Your task to perform on an android device: install app "Google Find My Device" Image 0: 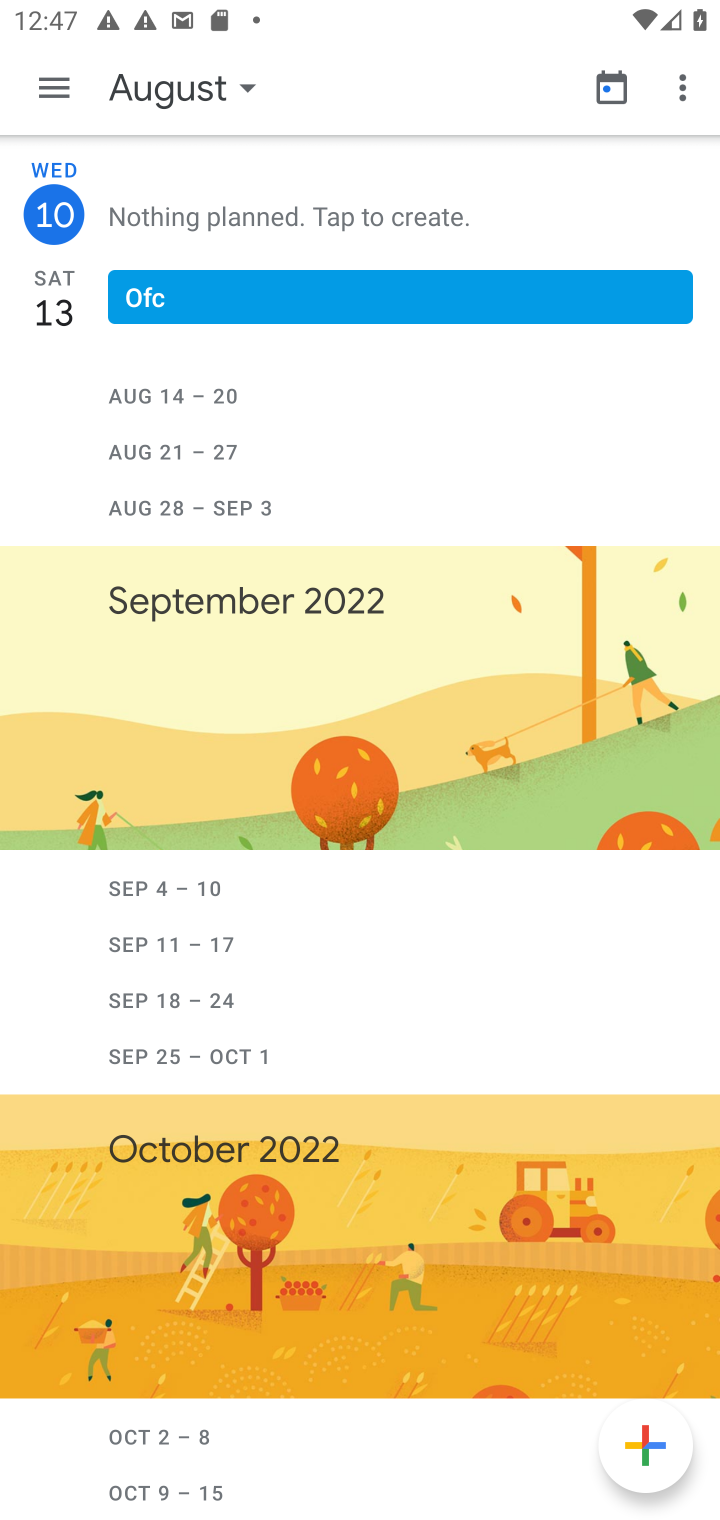
Step 0: press home button
Your task to perform on an android device: install app "Google Find My Device" Image 1: 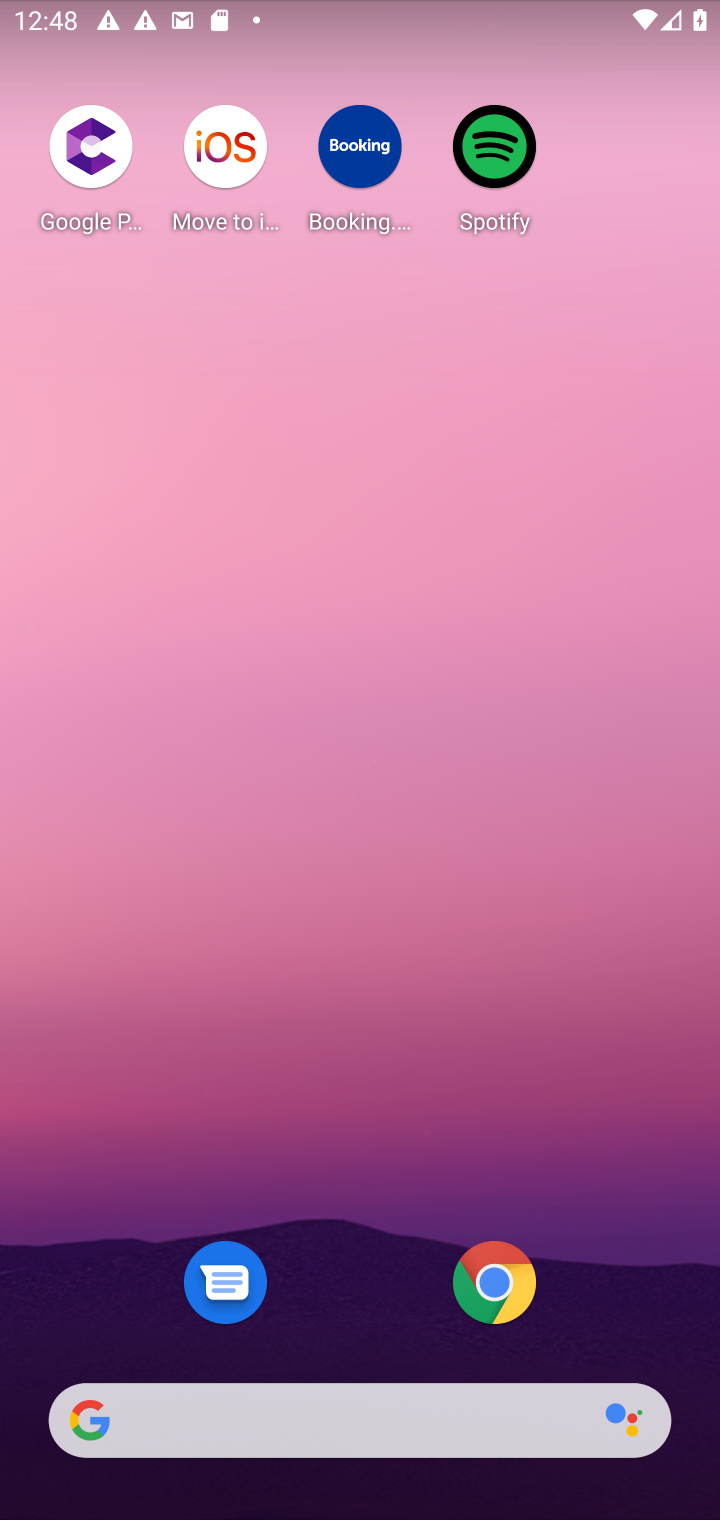
Step 1: drag from (395, 1345) to (432, 451)
Your task to perform on an android device: install app "Google Find My Device" Image 2: 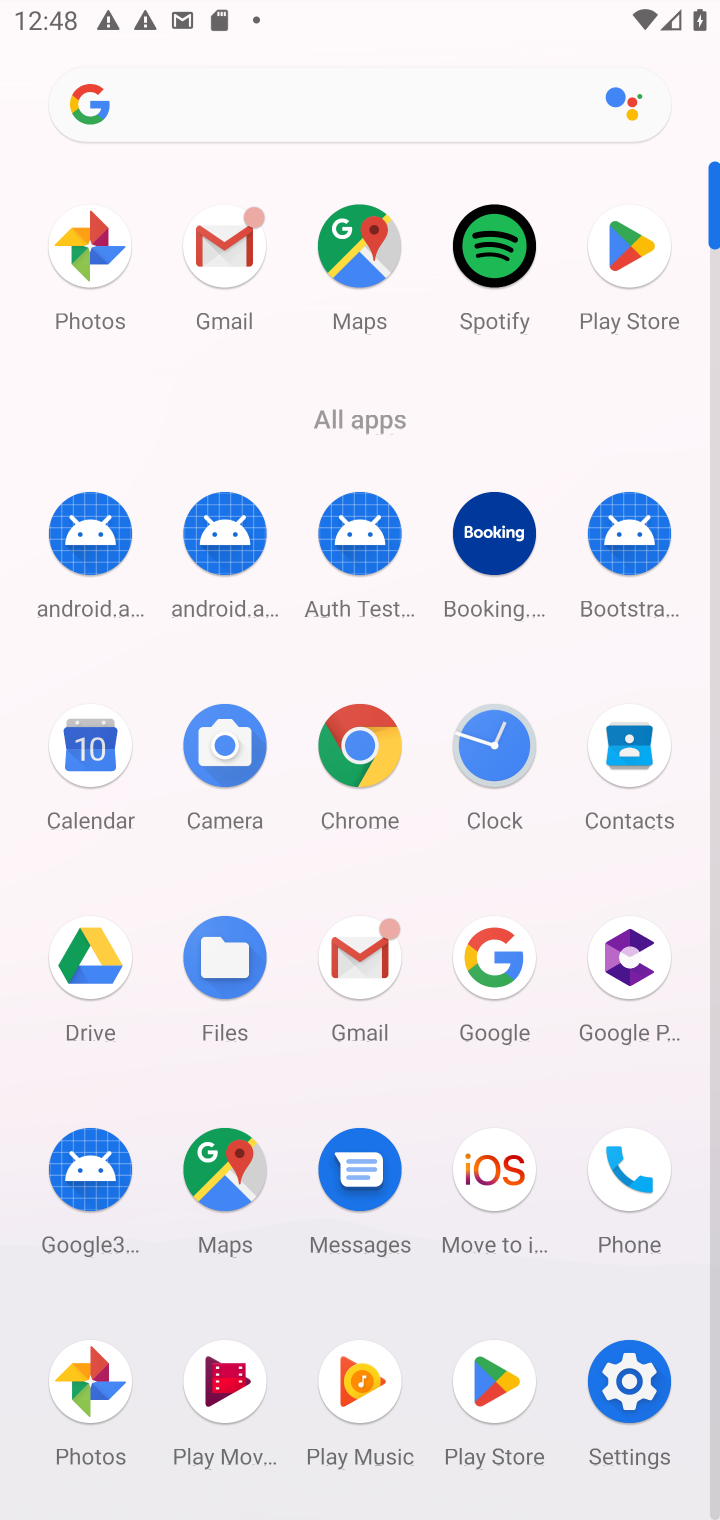
Step 2: click (242, 1174)
Your task to perform on an android device: install app "Google Find My Device" Image 3: 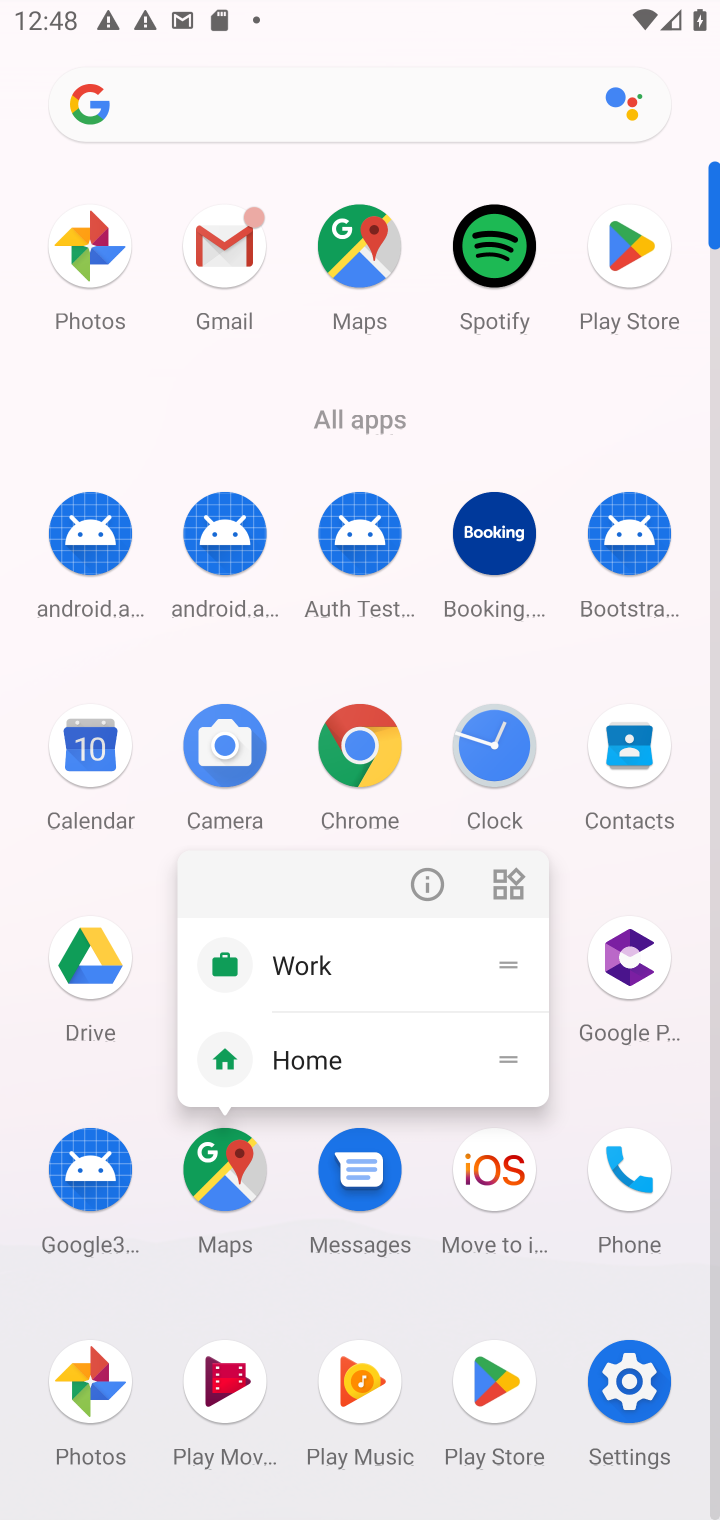
Step 3: click (622, 225)
Your task to perform on an android device: install app "Google Find My Device" Image 4: 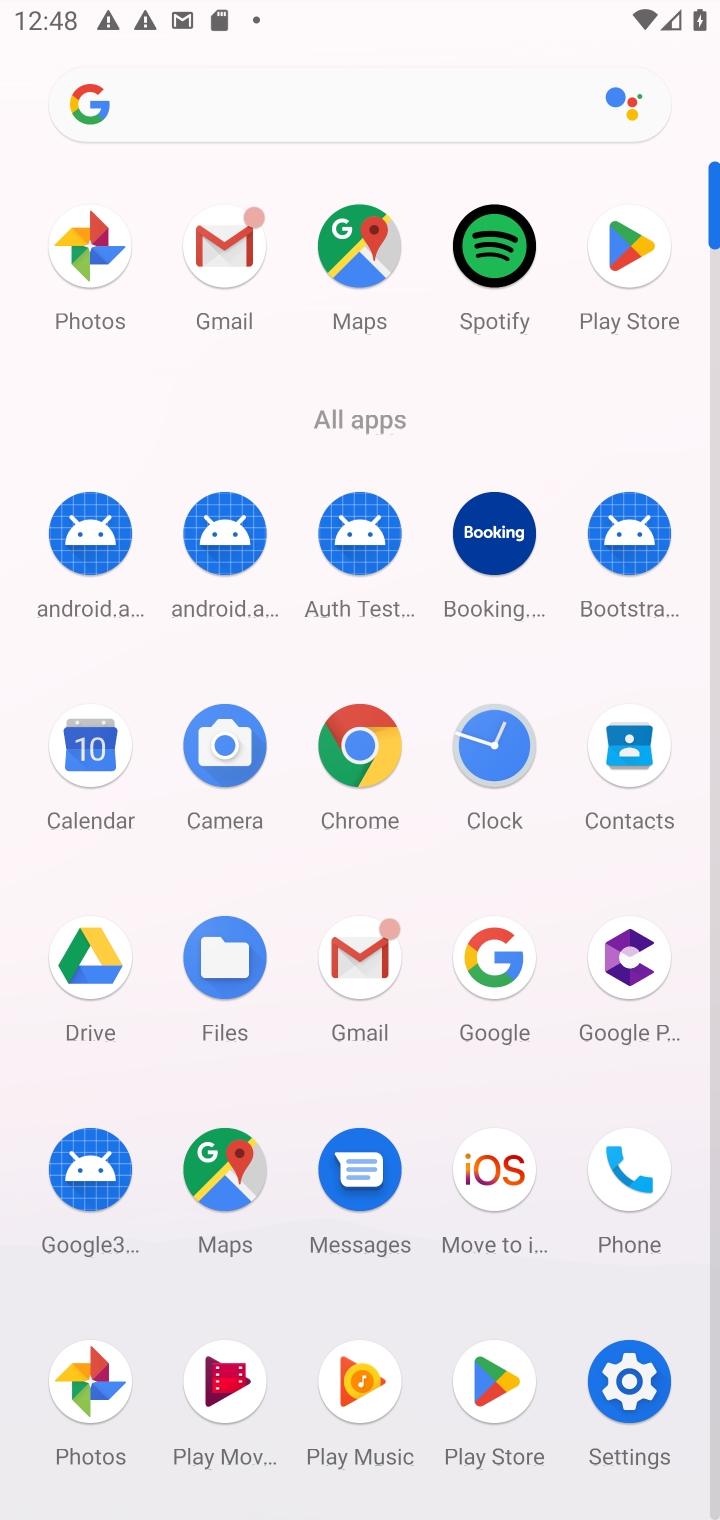
Step 4: click (630, 233)
Your task to perform on an android device: install app "Google Find My Device" Image 5: 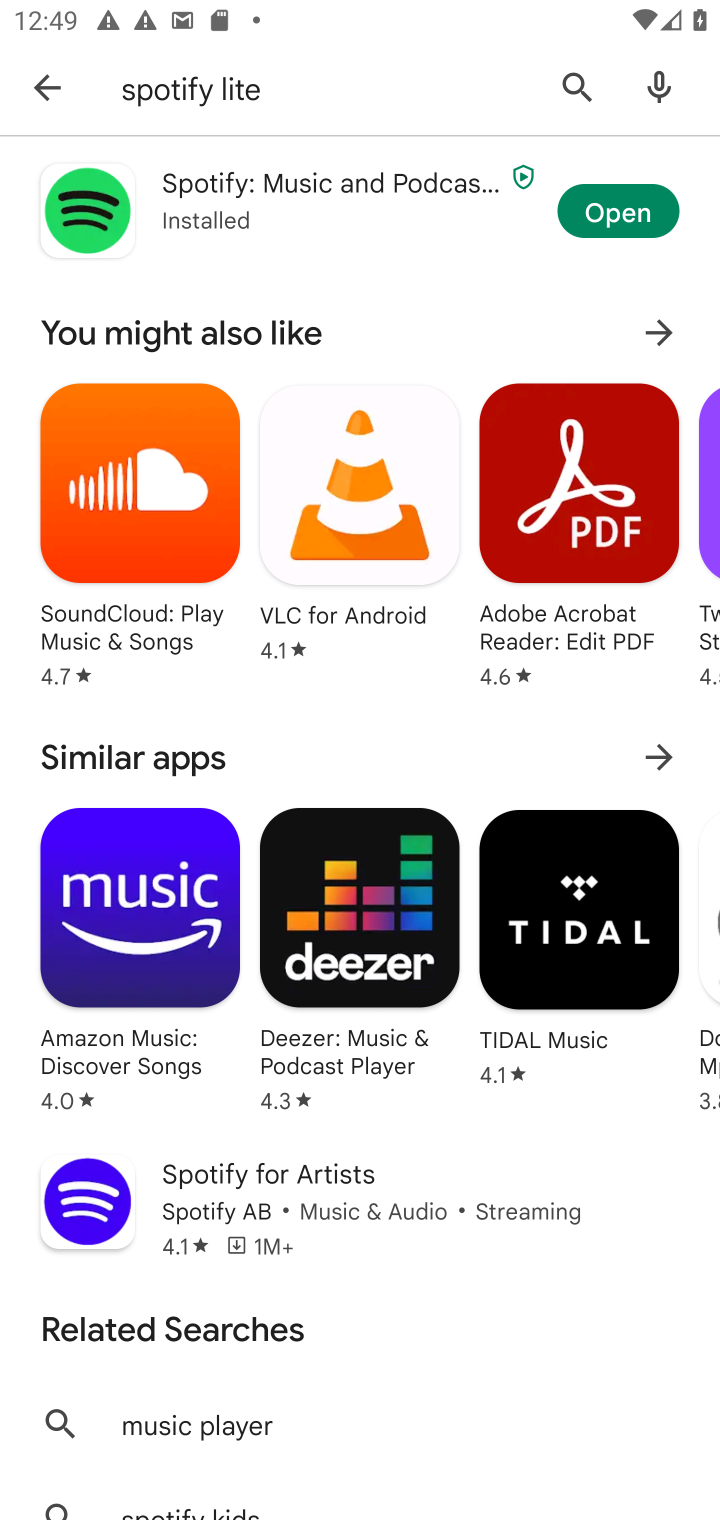
Step 5: click (80, 83)
Your task to perform on an android device: install app "Google Find My Device" Image 6: 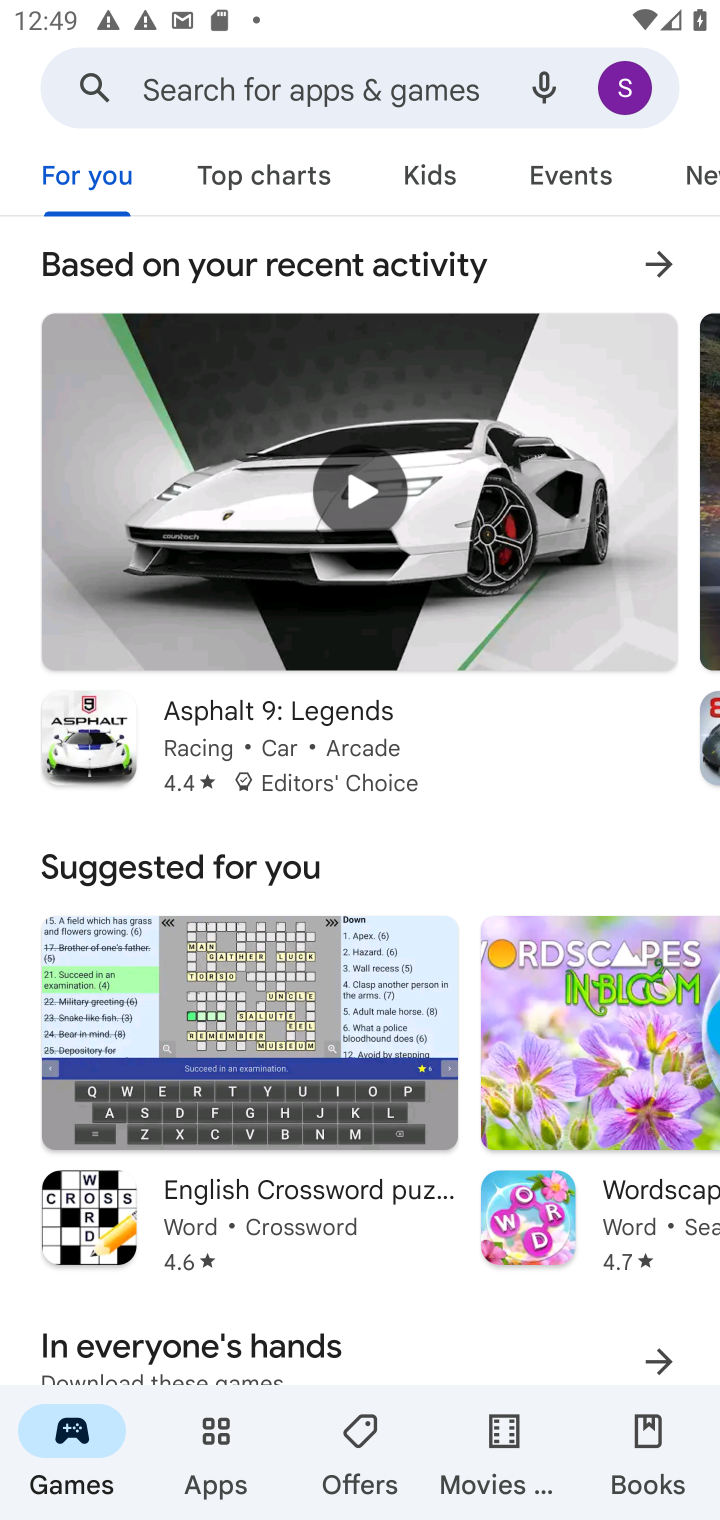
Step 6: click (321, 75)
Your task to perform on an android device: install app "Google Find My Device" Image 7: 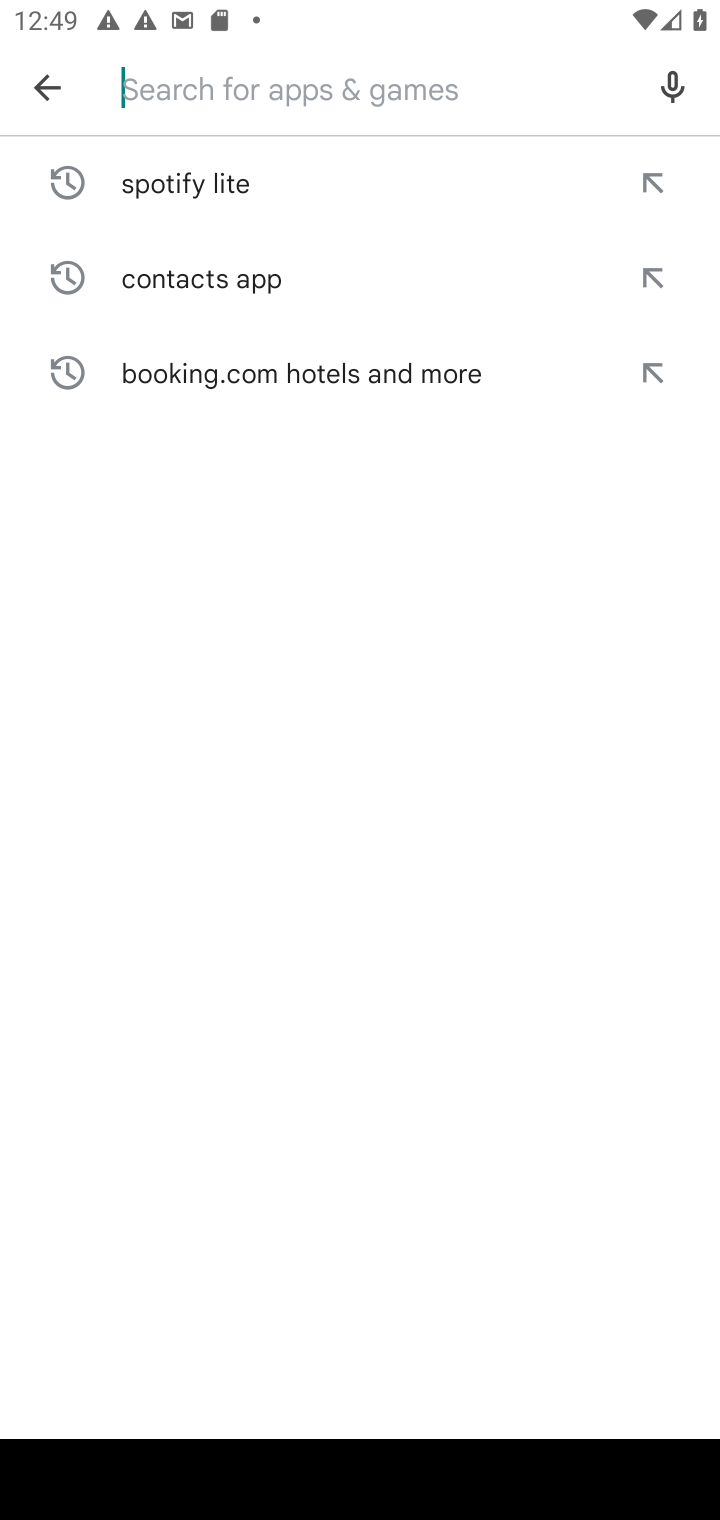
Step 7: type ""Google Find My Device "
Your task to perform on an android device: install app "Google Find My Device" Image 8: 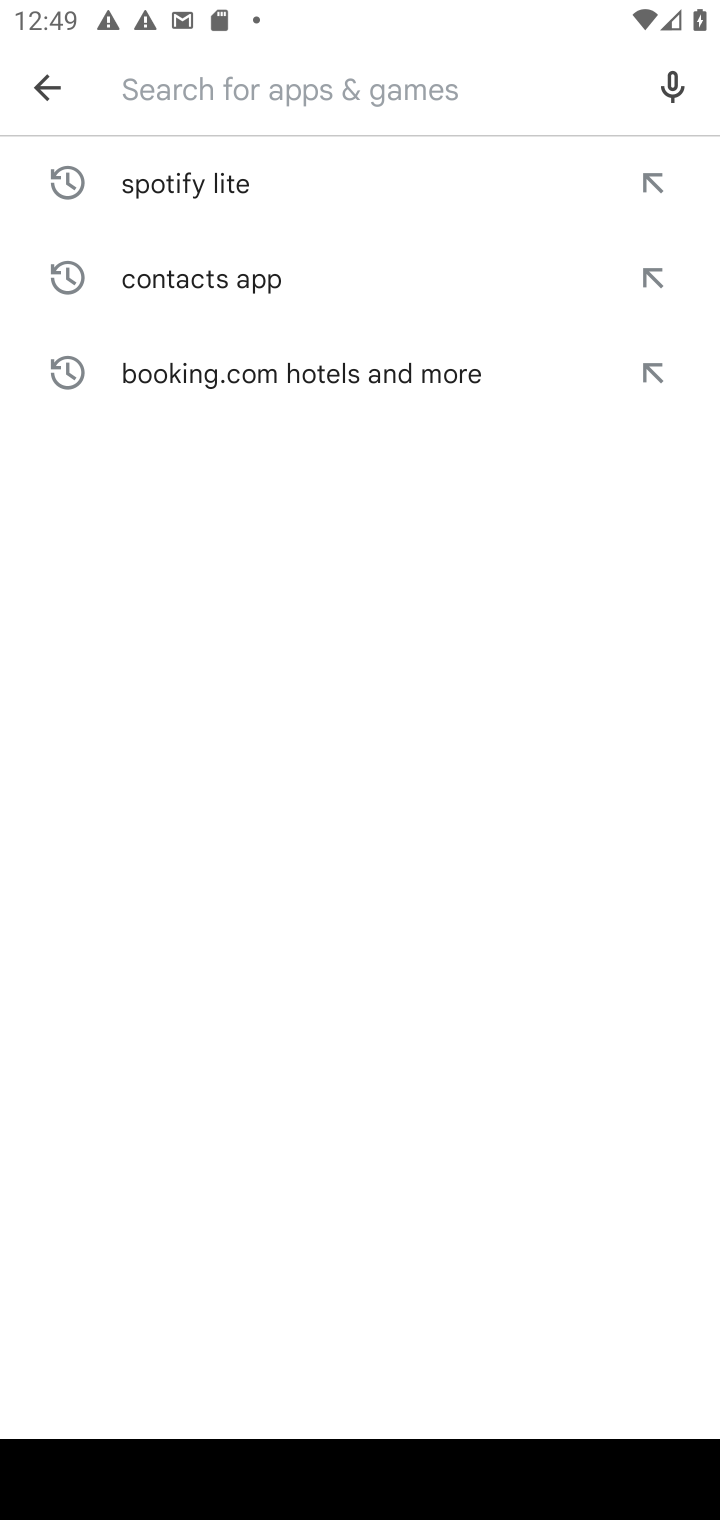
Step 8: click (250, 77)
Your task to perform on an android device: install app "Google Find My Device" Image 9: 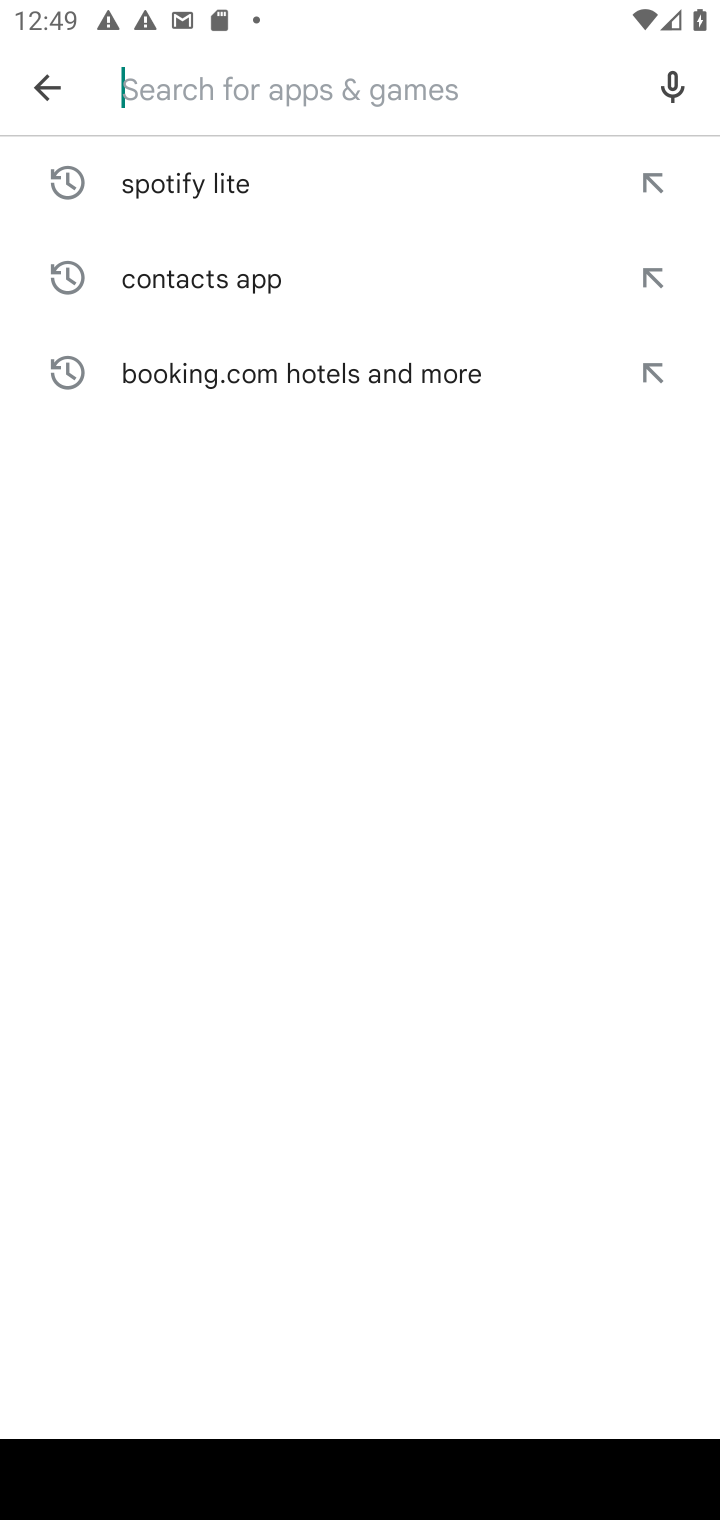
Step 9: type "Google Find My Device "
Your task to perform on an android device: install app "Google Find My Device" Image 10: 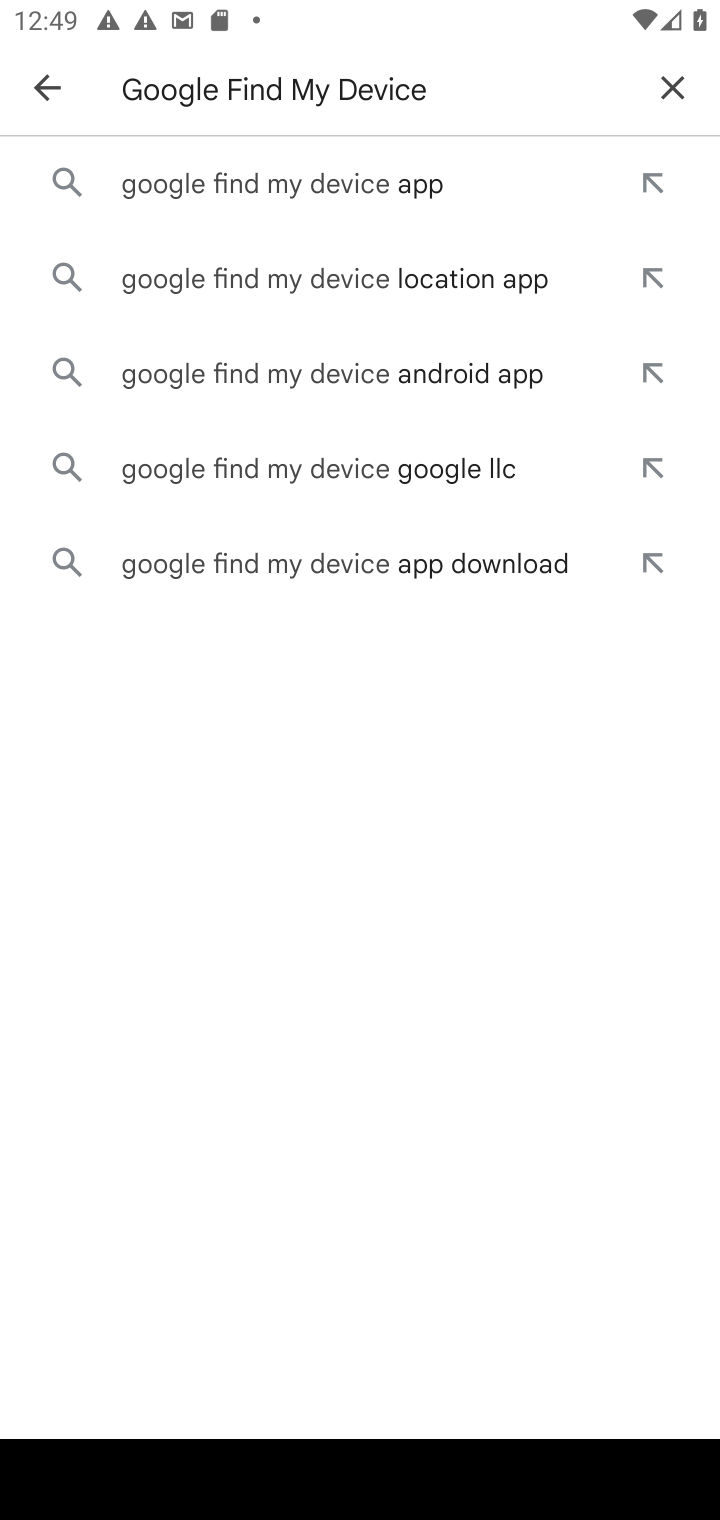
Step 10: click (276, 170)
Your task to perform on an android device: install app "Google Find My Device" Image 11: 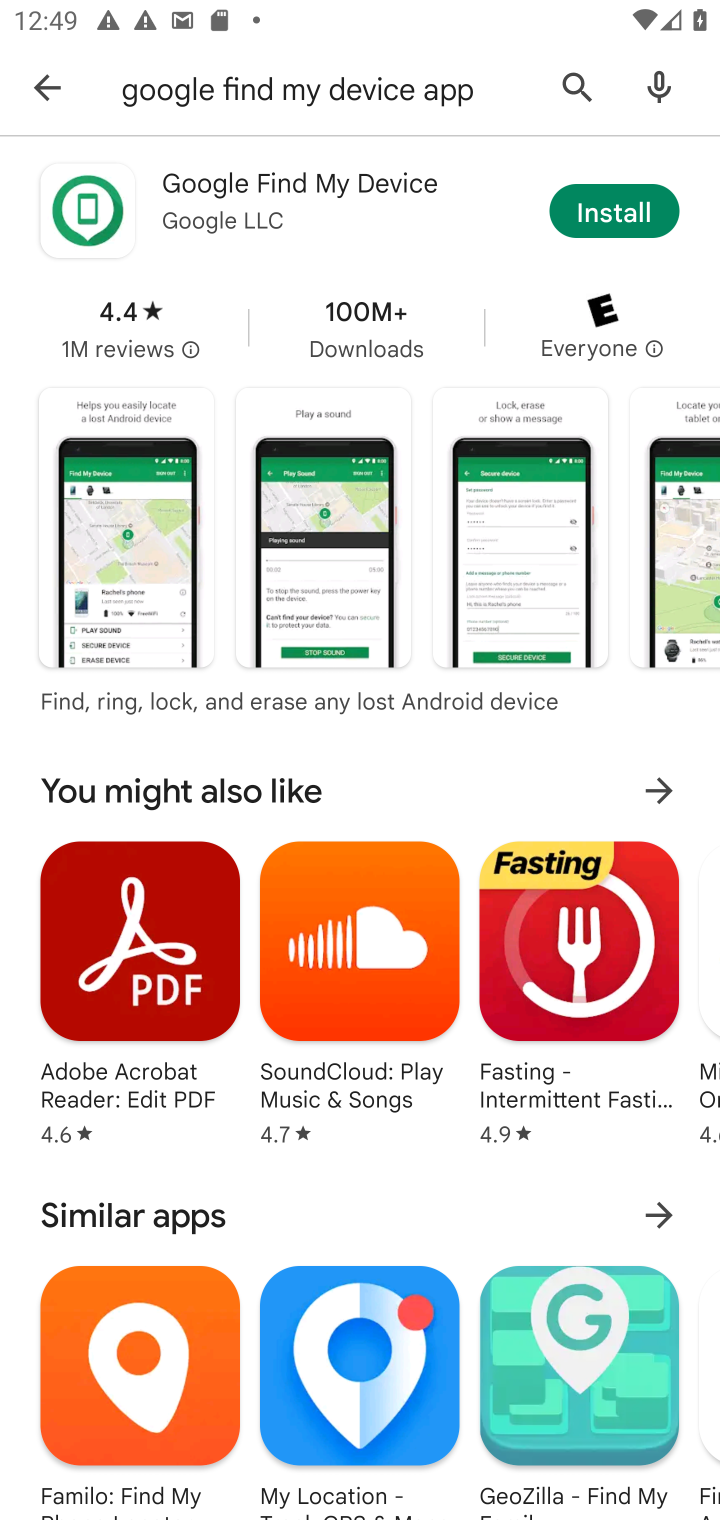
Step 11: click (632, 212)
Your task to perform on an android device: install app "Google Find My Device" Image 12: 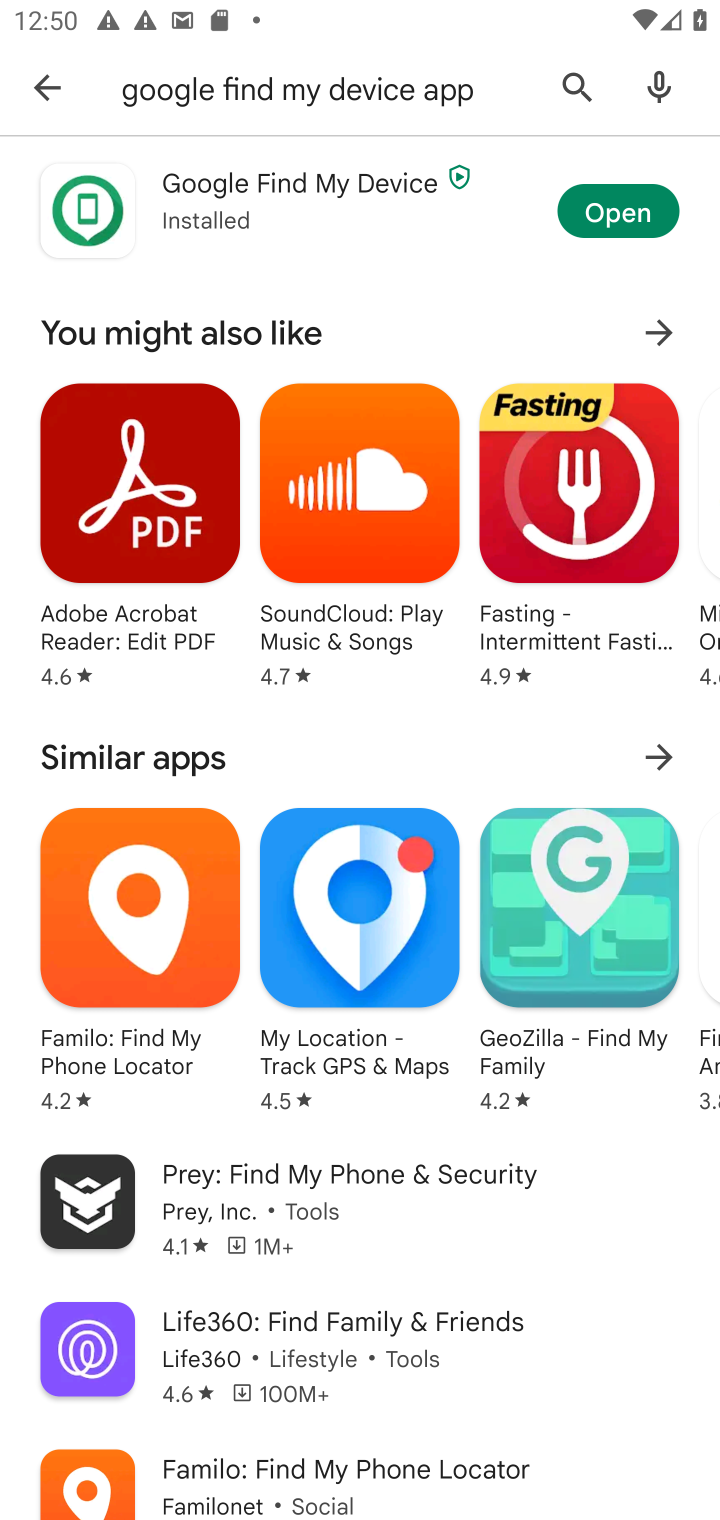
Step 12: click (610, 199)
Your task to perform on an android device: install app "Google Find My Device" Image 13: 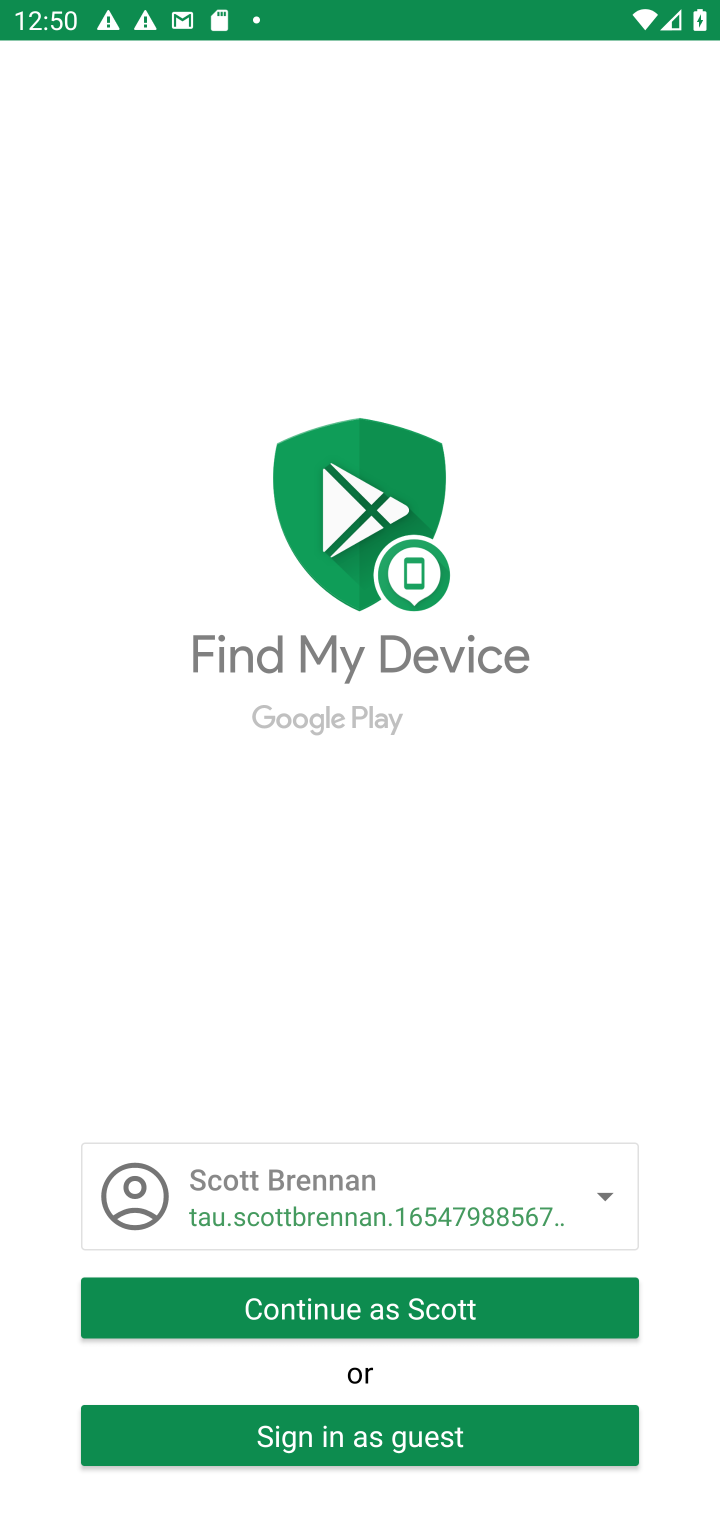
Step 13: task complete